Your task to perform on an android device: Do I have any events this weekend? Image 0: 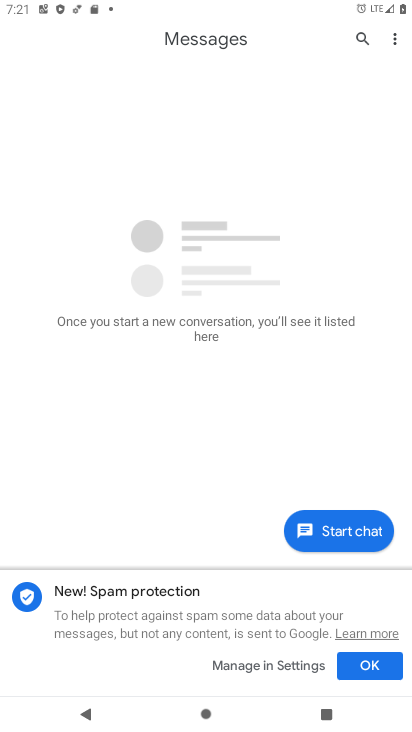
Step 0: press home button
Your task to perform on an android device: Do I have any events this weekend? Image 1: 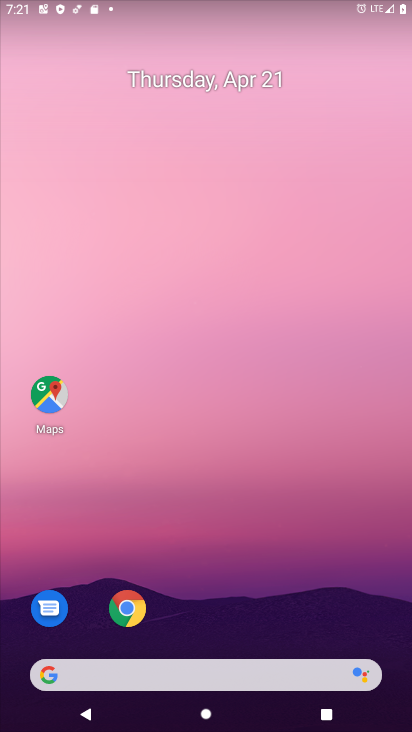
Step 1: drag from (236, 488) to (213, 245)
Your task to perform on an android device: Do I have any events this weekend? Image 2: 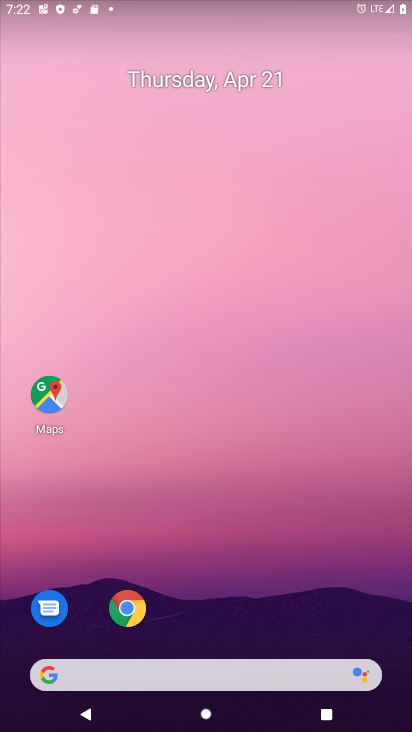
Step 2: drag from (213, 456) to (189, 284)
Your task to perform on an android device: Do I have any events this weekend? Image 3: 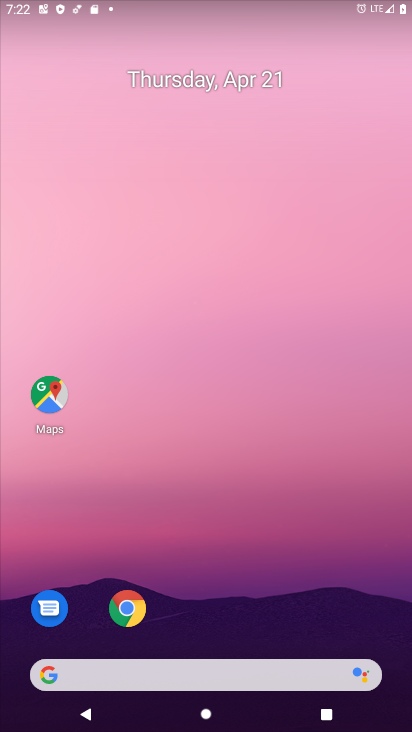
Step 3: drag from (281, 612) to (231, 121)
Your task to perform on an android device: Do I have any events this weekend? Image 4: 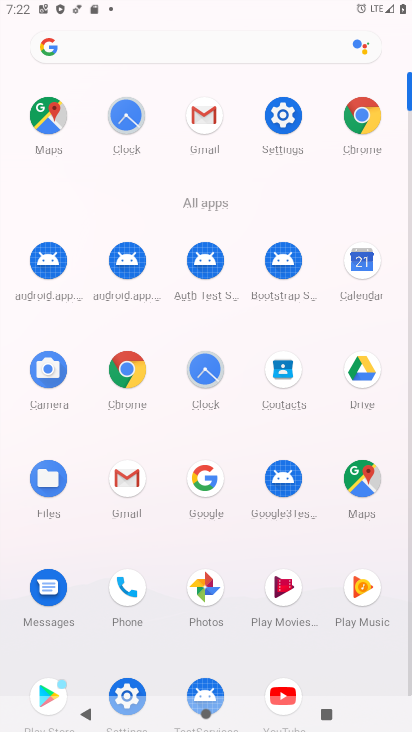
Step 4: click (382, 258)
Your task to perform on an android device: Do I have any events this weekend? Image 5: 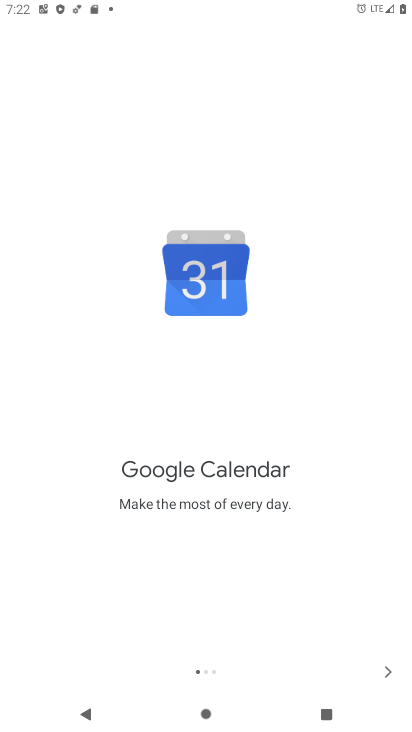
Step 5: click (383, 677)
Your task to perform on an android device: Do I have any events this weekend? Image 6: 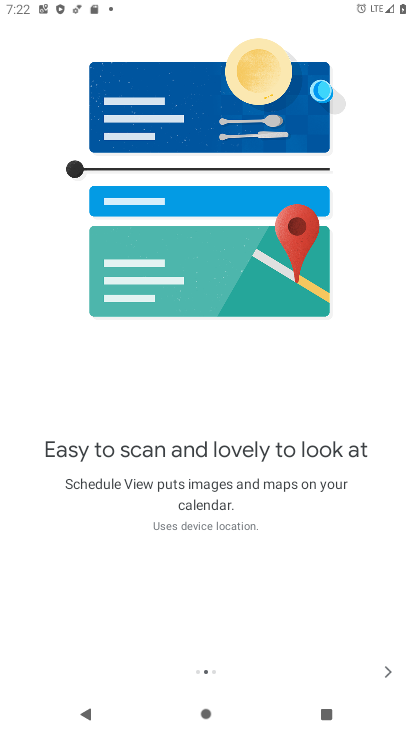
Step 6: click (383, 677)
Your task to perform on an android device: Do I have any events this weekend? Image 7: 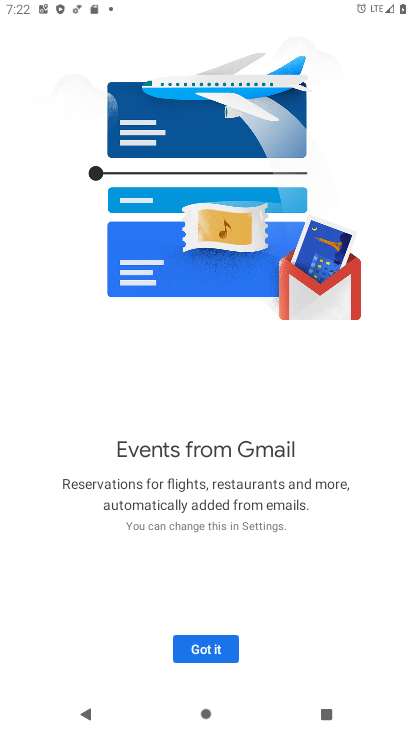
Step 7: click (189, 658)
Your task to perform on an android device: Do I have any events this weekend? Image 8: 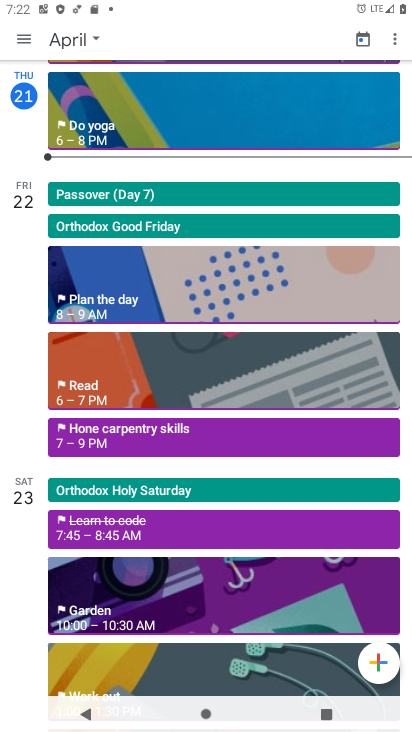
Step 8: click (85, 39)
Your task to perform on an android device: Do I have any events this weekend? Image 9: 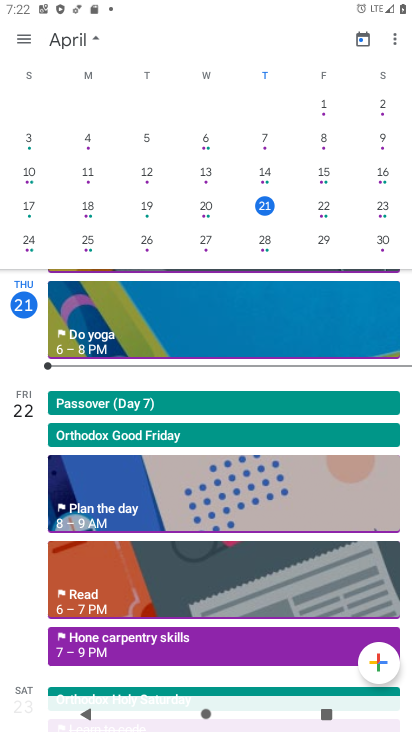
Step 9: click (324, 215)
Your task to perform on an android device: Do I have any events this weekend? Image 10: 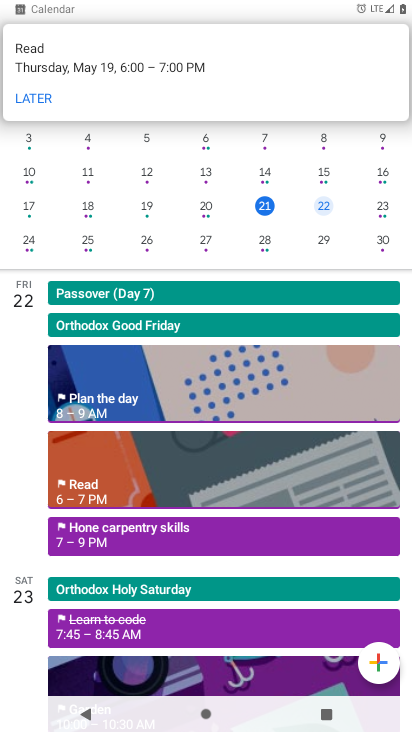
Step 10: click (381, 209)
Your task to perform on an android device: Do I have any events this weekend? Image 11: 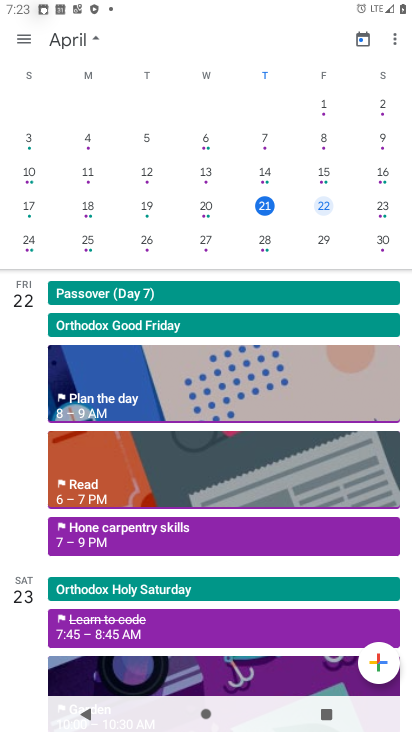
Step 11: click (381, 213)
Your task to perform on an android device: Do I have any events this weekend? Image 12: 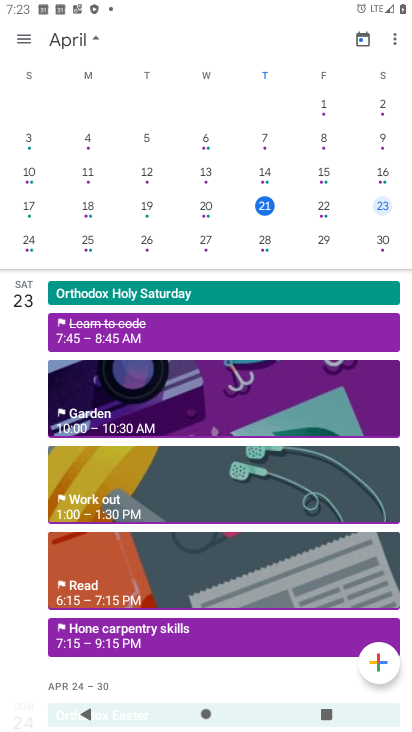
Step 12: click (29, 243)
Your task to perform on an android device: Do I have any events this weekend? Image 13: 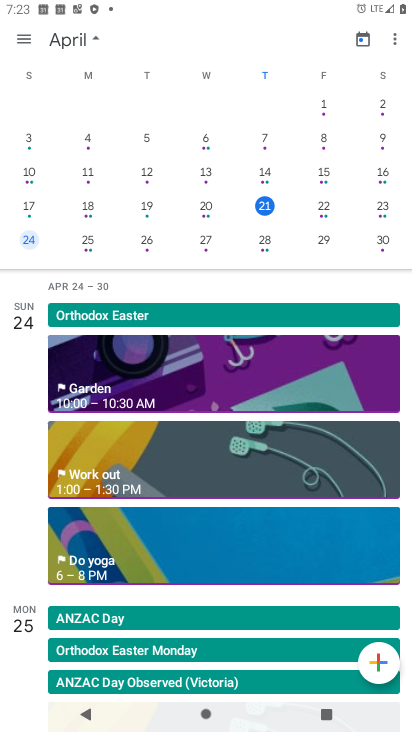
Step 13: task complete